Your task to perform on an android device: check storage Image 0: 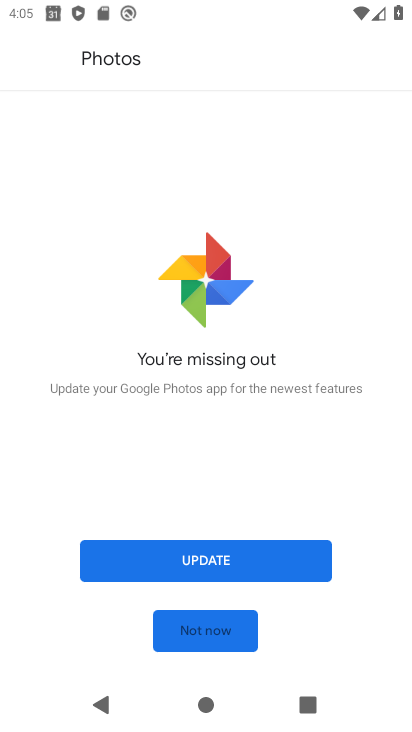
Step 0: press home button
Your task to perform on an android device: check storage Image 1: 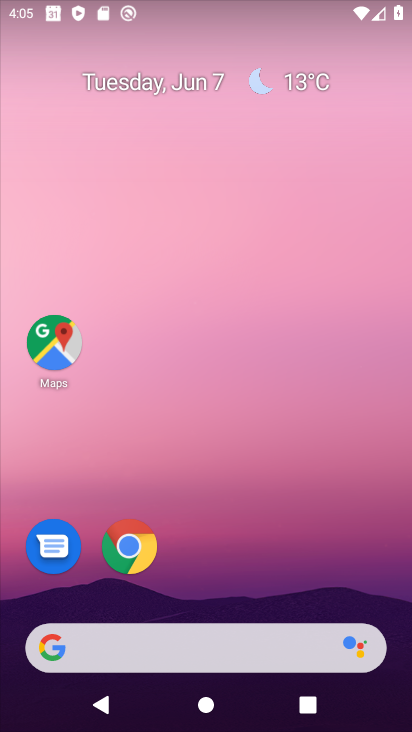
Step 1: drag from (208, 598) to (211, 51)
Your task to perform on an android device: check storage Image 2: 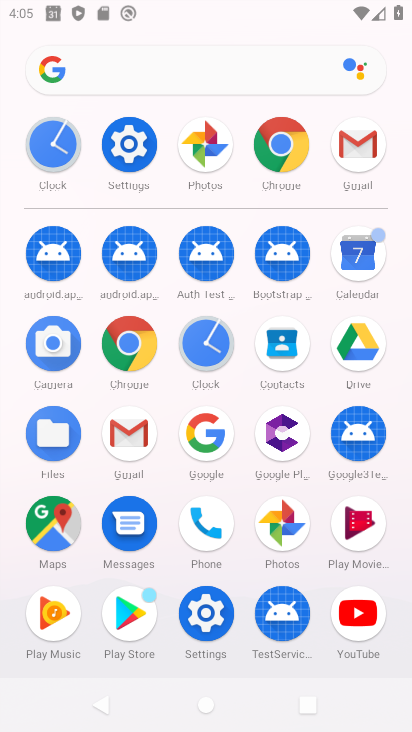
Step 2: click (119, 148)
Your task to perform on an android device: check storage Image 3: 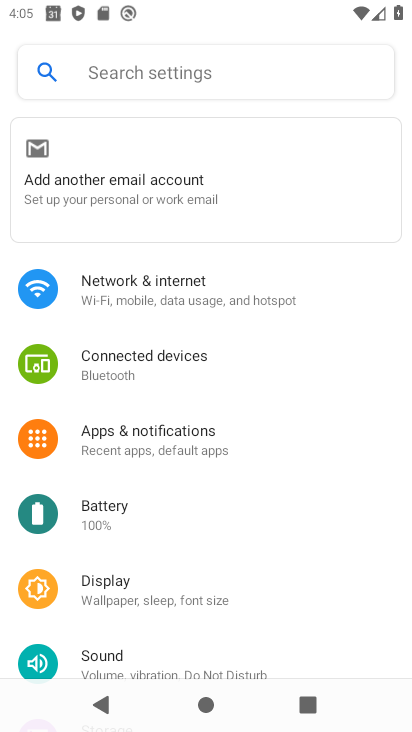
Step 3: drag from (110, 599) to (186, 35)
Your task to perform on an android device: check storage Image 4: 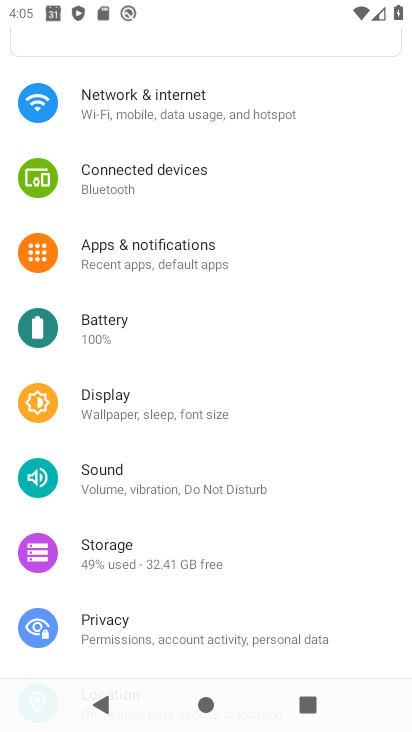
Step 4: click (103, 540)
Your task to perform on an android device: check storage Image 5: 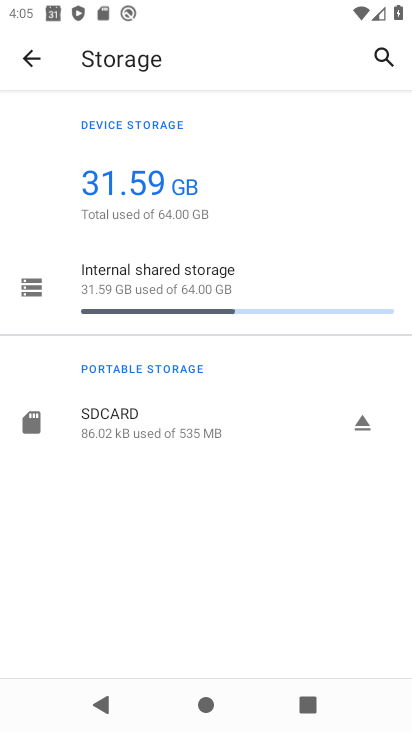
Step 5: task complete